Your task to perform on an android device: Go to Google Image 0: 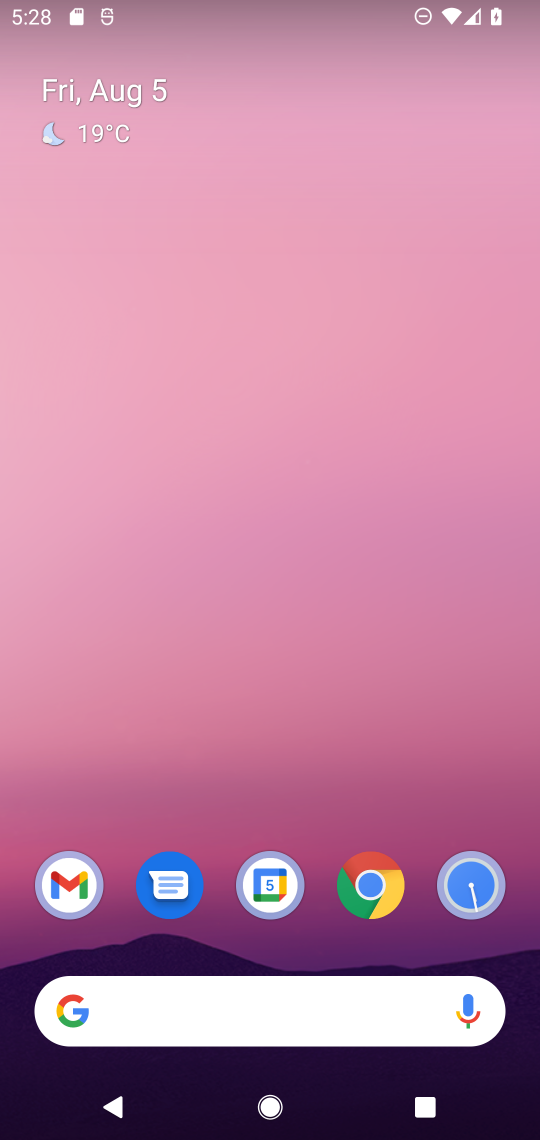
Step 0: drag from (337, 923) to (337, 127)
Your task to perform on an android device: Go to Google Image 1: 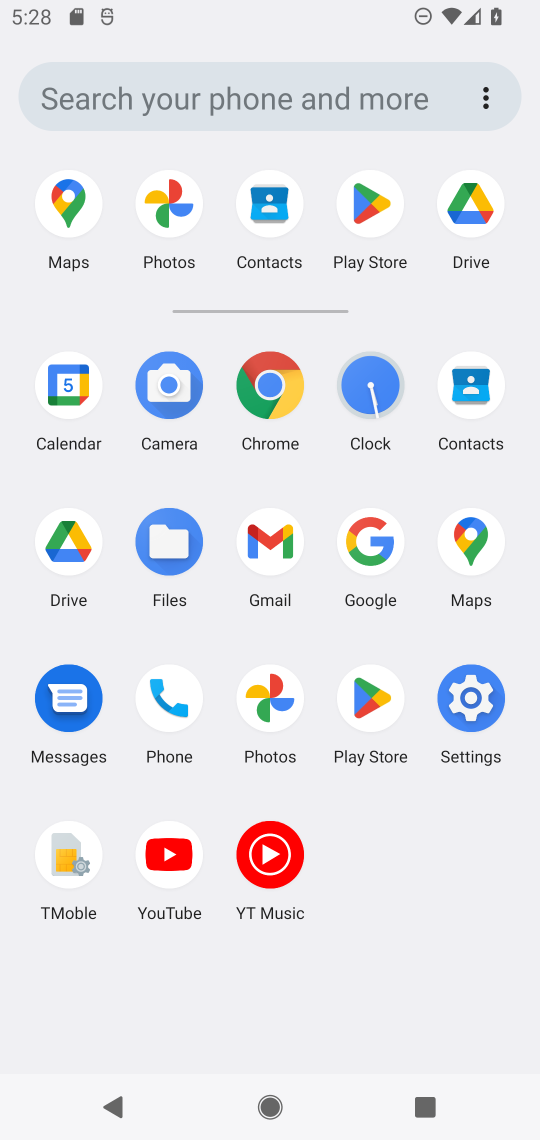
Step 1: click (369, 530)
Your task to perform on an android device: Go to Google Image 2: 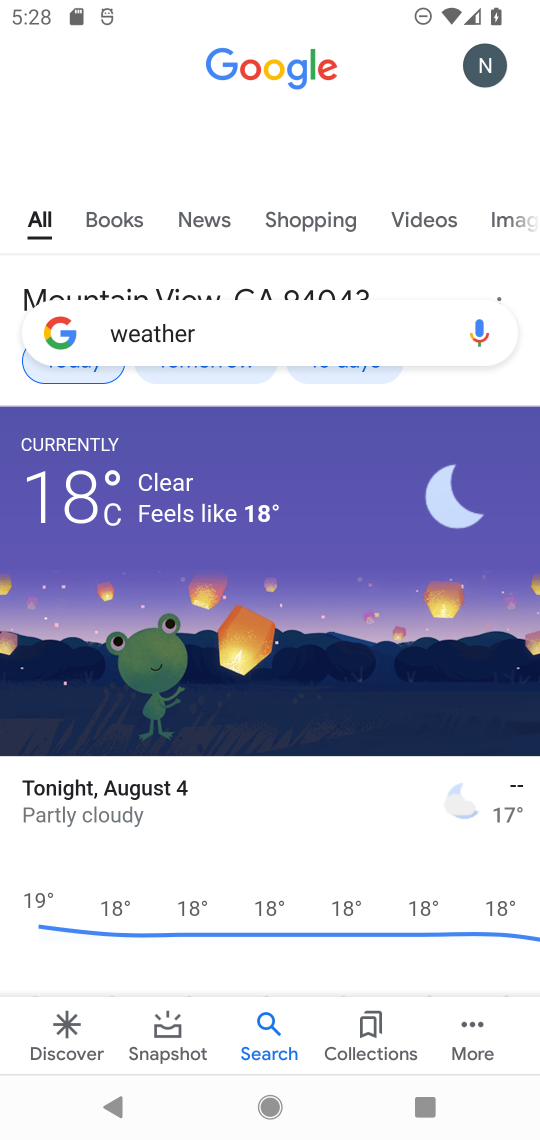
Step 2: task complete